Your task to perform on an android device: Add "logitech g502" to the cart on amazon Image 0: 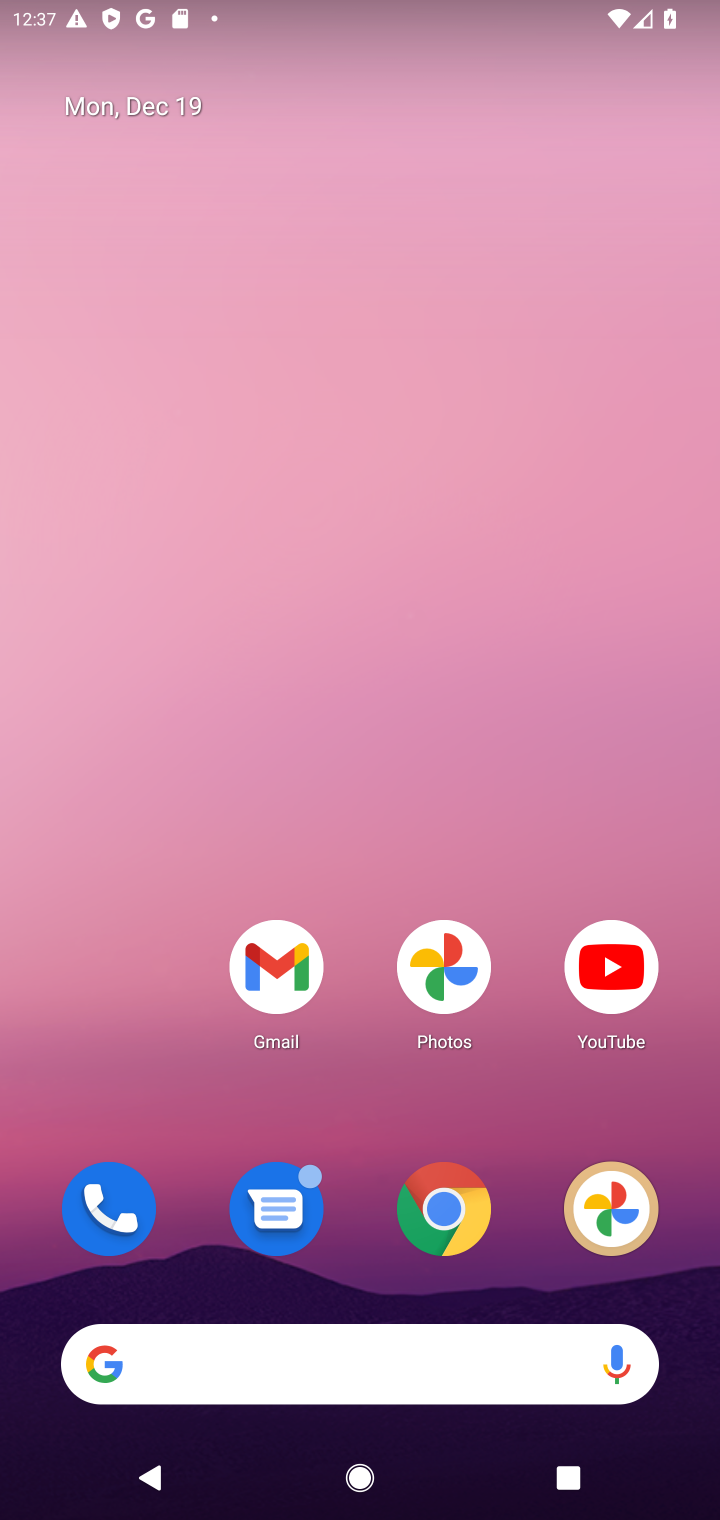
Step 0: click (443, 1224)
Your task to perform on an android device: Add "logitech g502" to the cart on amazon Image 1: 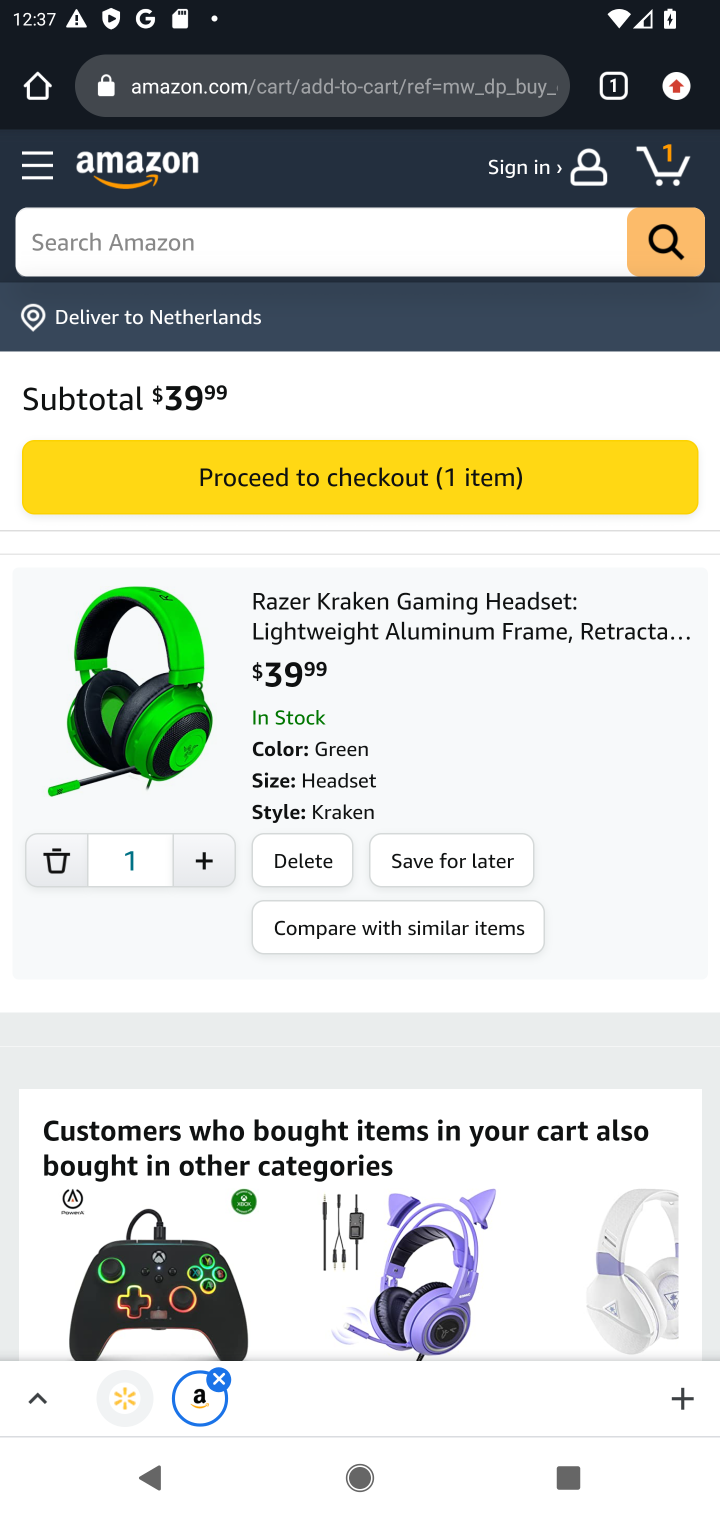
Step 1: click (155, 168)
Your task to perform on an android device: Add "logitech g502" to the cart on amazon Image 2: 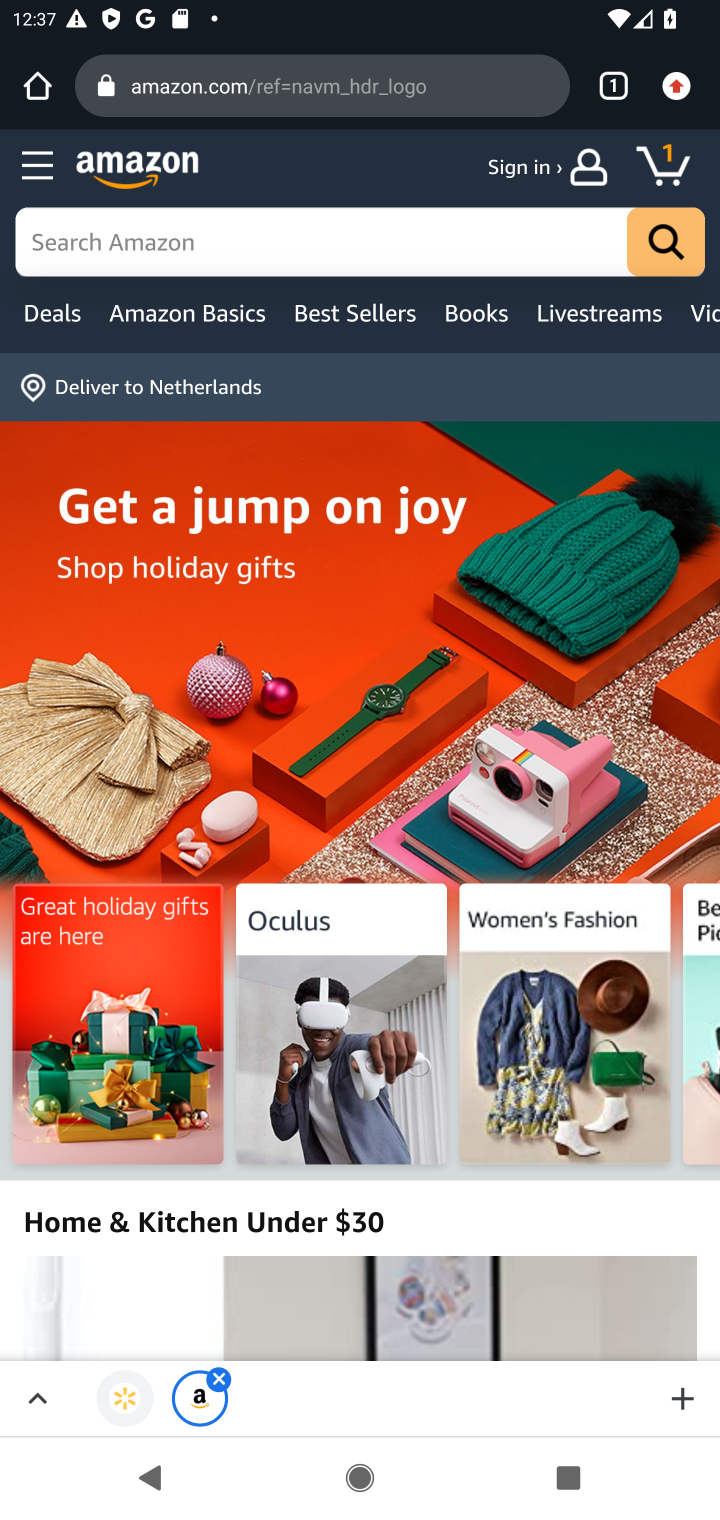
Step 2: click (270, 254)
Your task to perform on an android device: Add "logitech g502" to the cart on amazon Image 3: 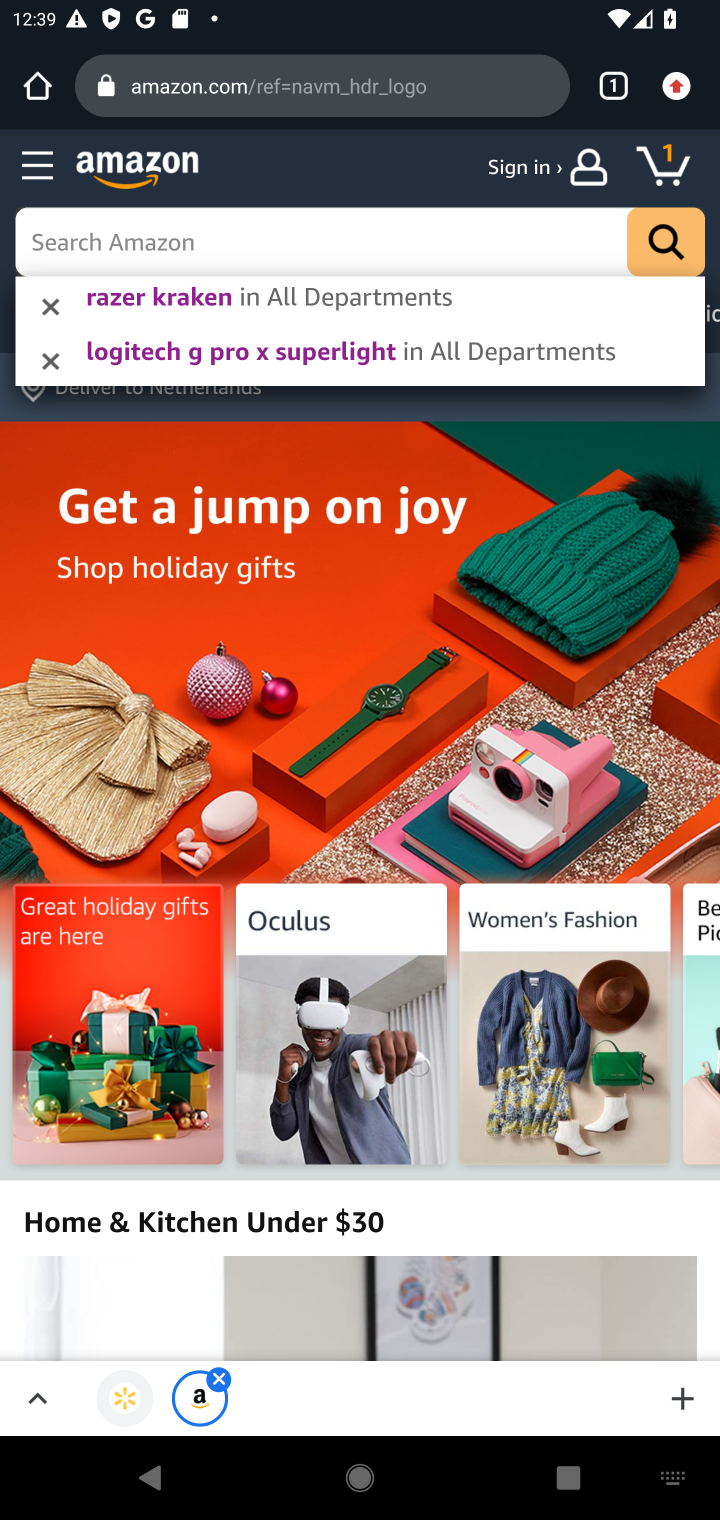
Step 3: type "logitech g502"
Your task to perform on an android device: Add "logitech g502" to the cart on amazon Image 4: 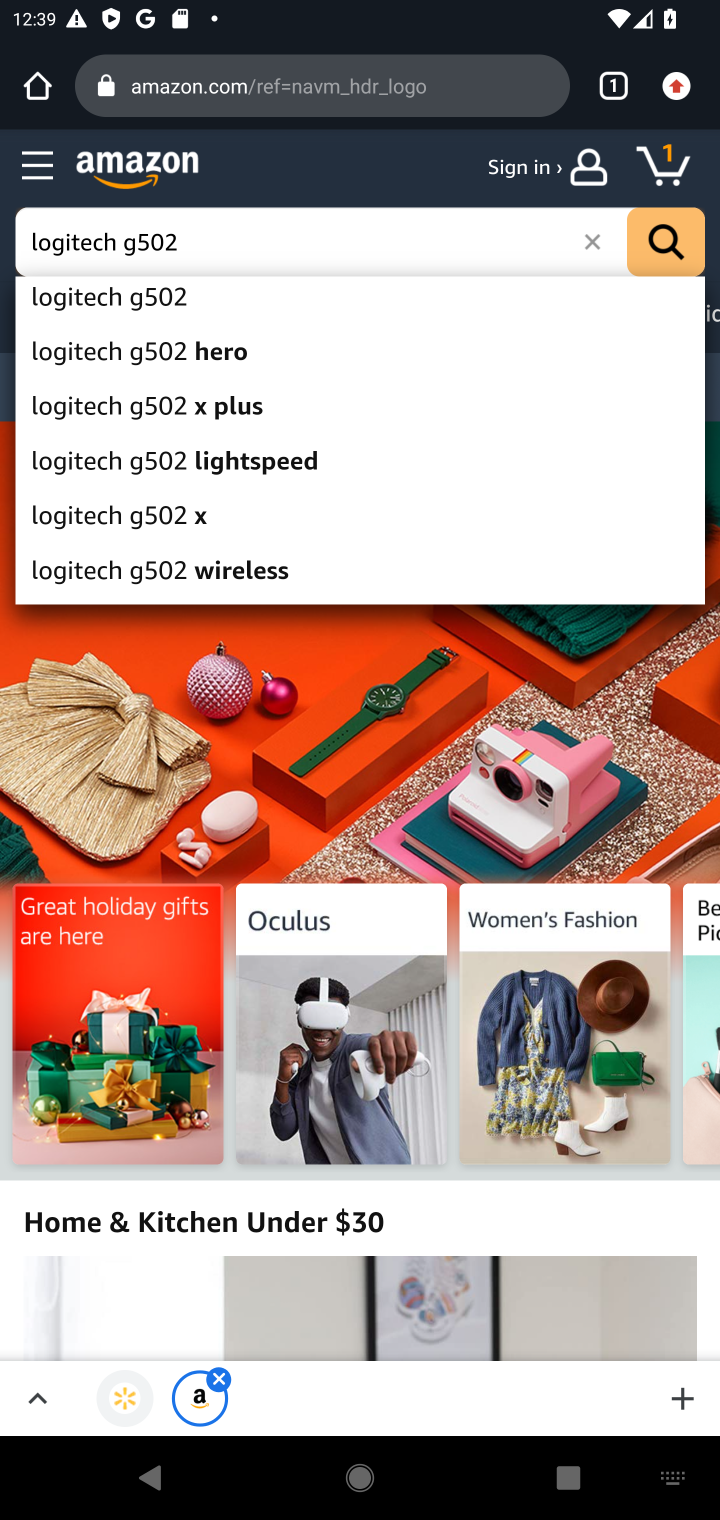
Step 4: click (153, 294)
Your task to perform on an android device: Add "logitech g502" to the cart on amazon Image 5: 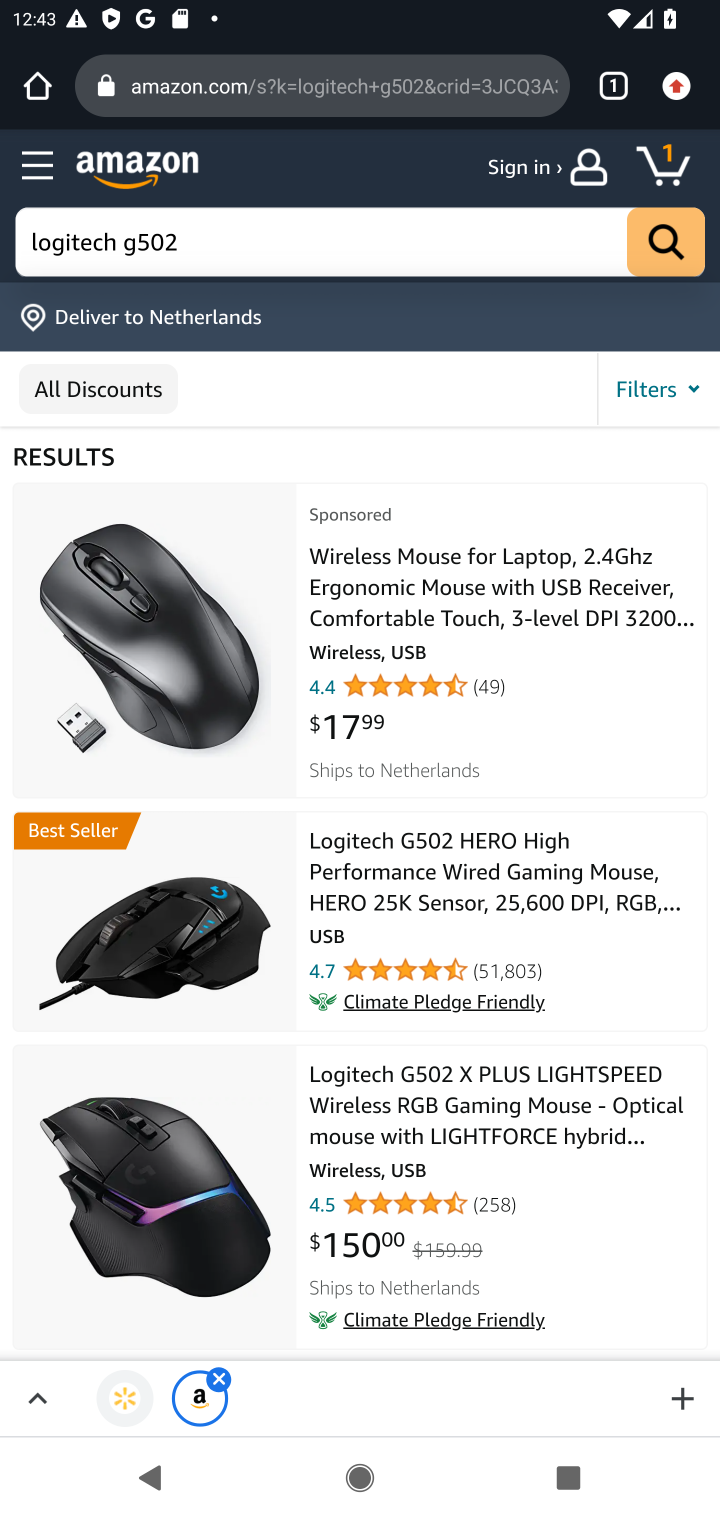
Step 5: click (590, 598)
Your task to perform on an android device: Add "logitech g502" to the cart on amazon Image 6: 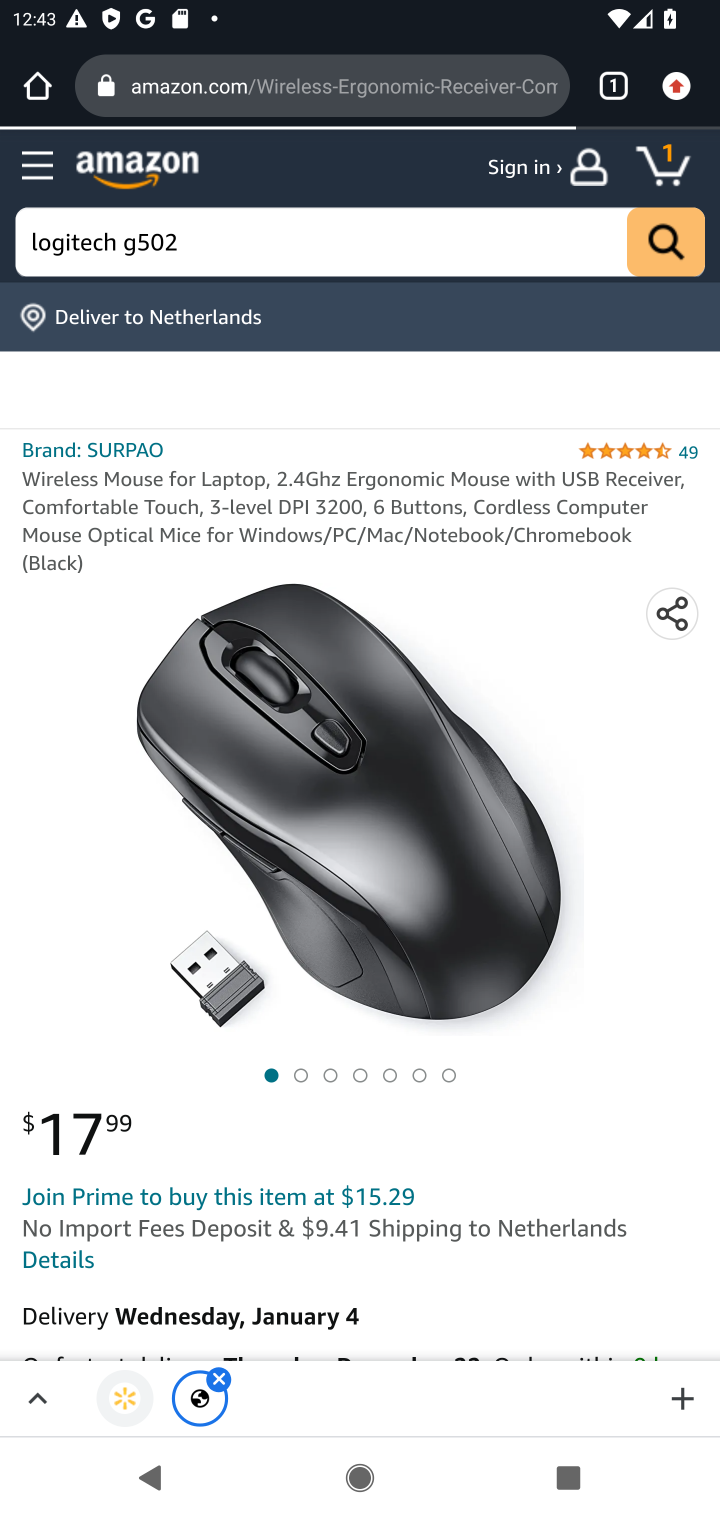
Step 6: drag from (466, 1281) to (383, 336)
Your task to perform on an android device: Add "logitech g502" to the cart on amazon Image 7: 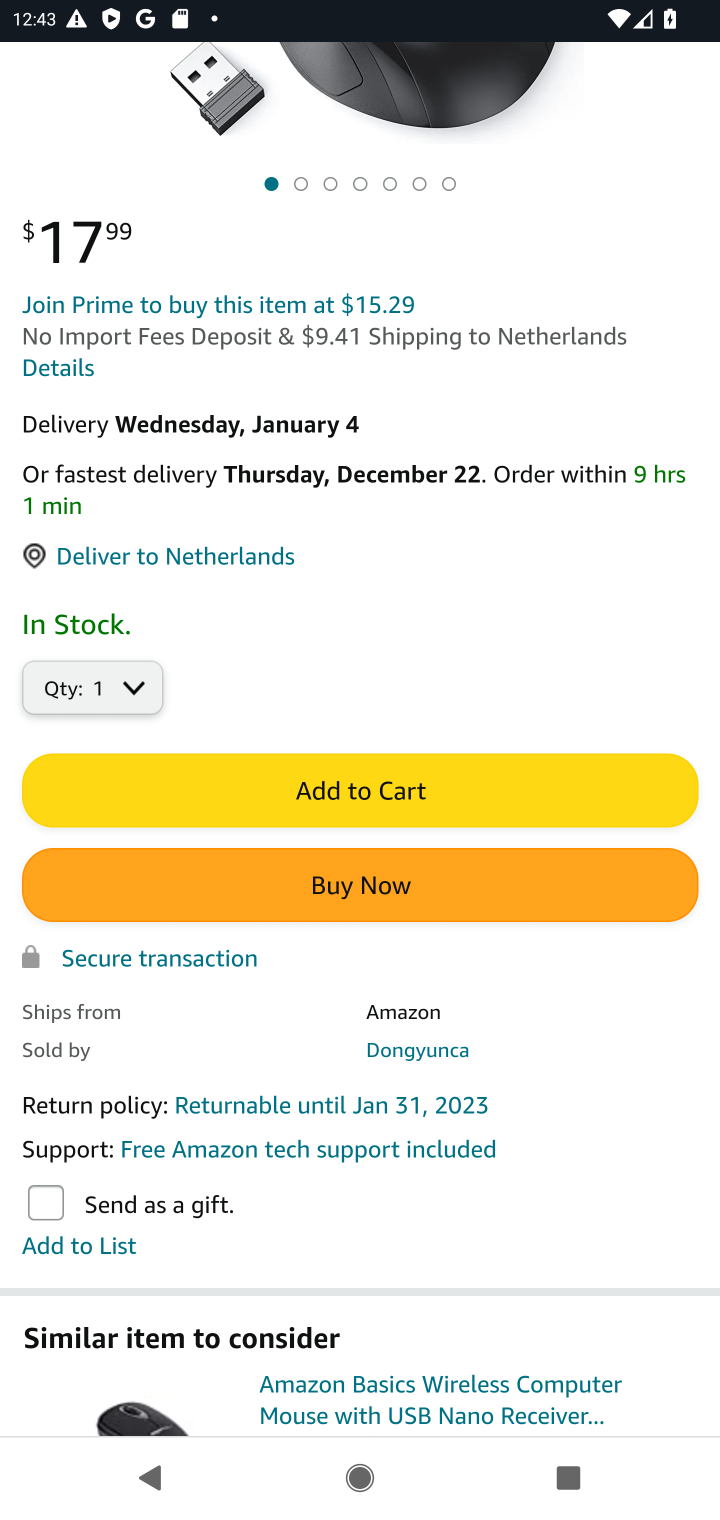
Step 7: click (396, 794)
Your task to perform on an android device: Add "logitech g502" to the cart on amazon Image 8: 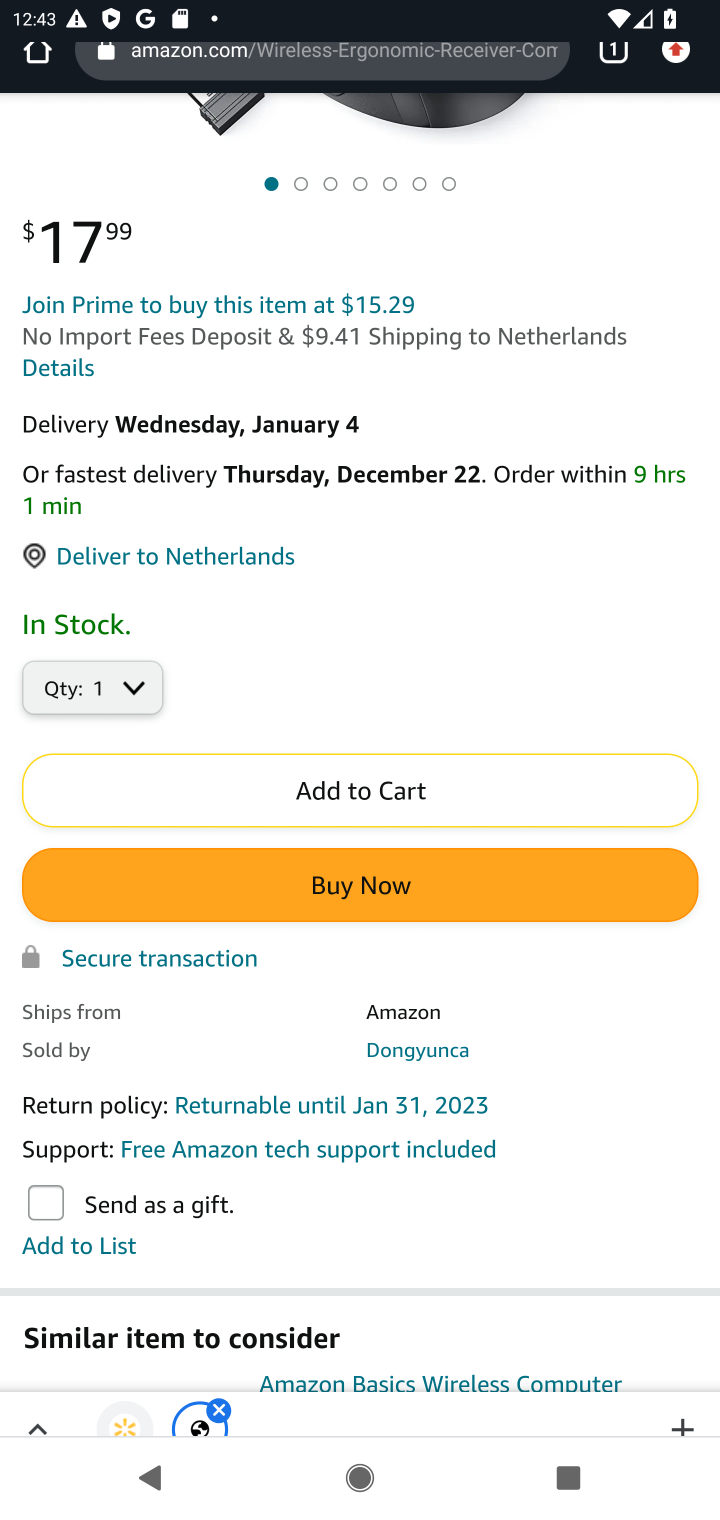
Step 8: task complete